Your task to perform on an android device: show emergency info Image 0: 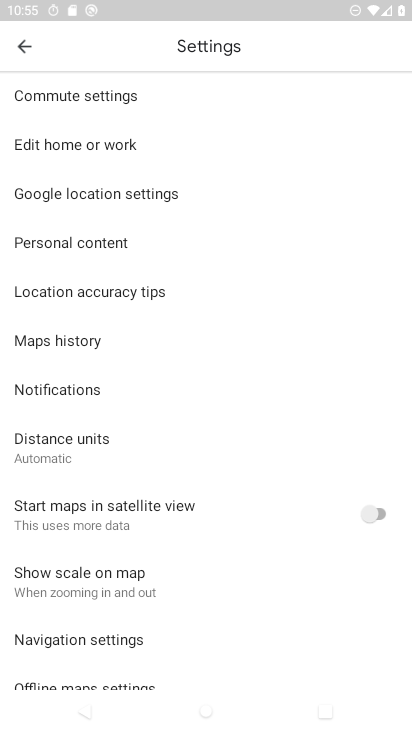
Step 0: press home button
Your task to perform on an android device: show emergency info Image 1: 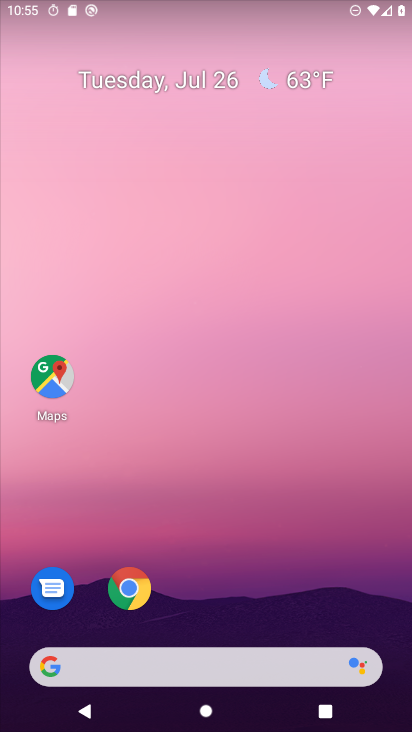
Step 1: drag from (157, 636) to (306, 124)
Your task to perform on an android device: show emergency info Image 2: 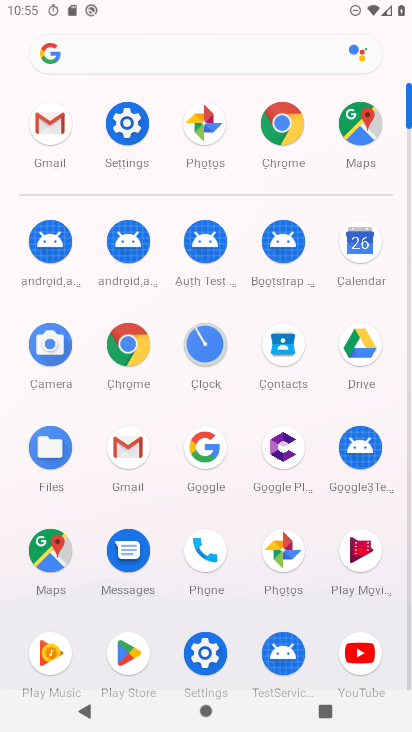
Step 2: click (112, 131)
Your task to perform on an android device: show emergency info Image 3: 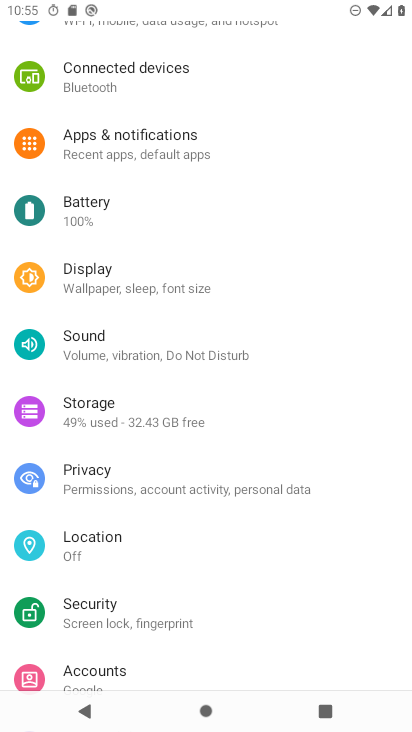
Step 3: drag from (170, 672) to (254, 115)
Your task to perform on an android device: show emergency info Image 4: 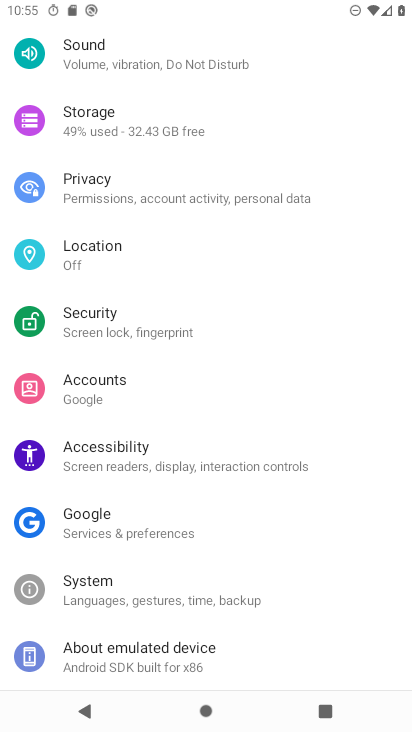
Step 4: click (218, 652)
Your task to perform on an android device: show emergency info Image 5: 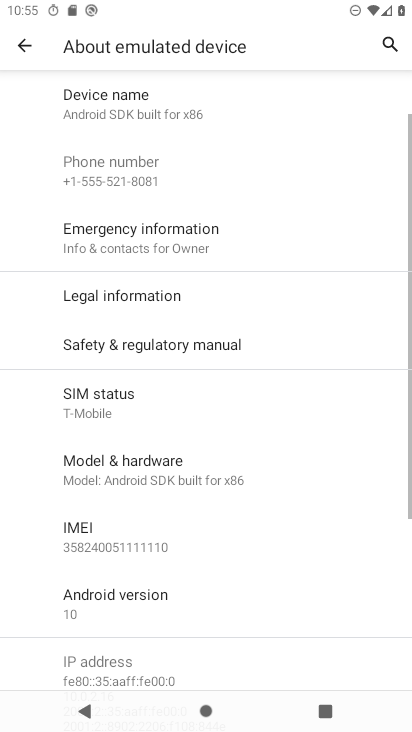
Step 5: click (137, 255)
Your task to perform on an android device: show emergency info Image 6: 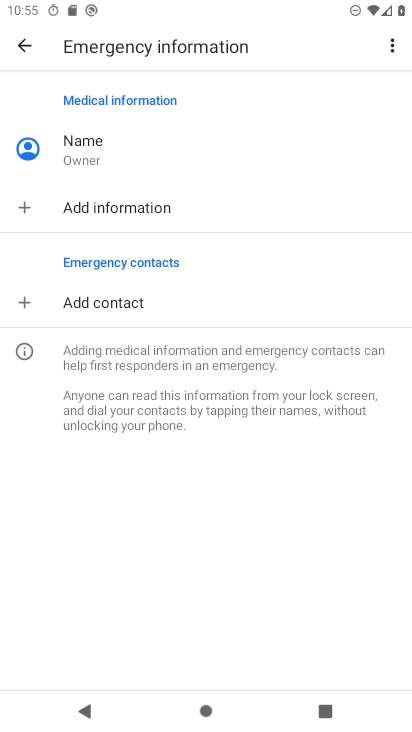
Step 6: task complete